Your task to perform on an android device: turn off translation in the chrome app Image 0: 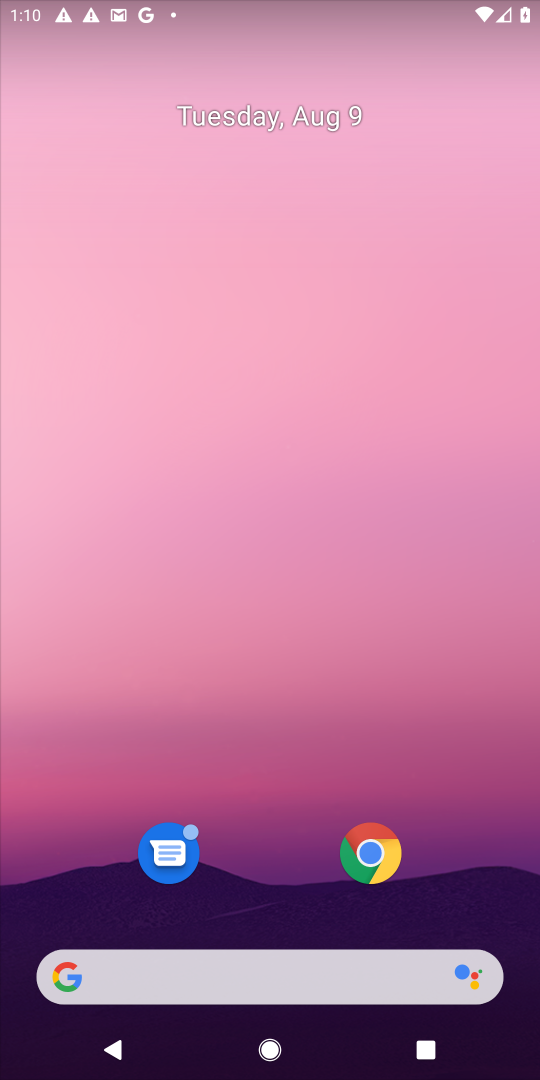
Step 0: drag from (275, 927) to (321, 50)
Your task to perform on an android device: turn off translation in the chrome app Image 1: 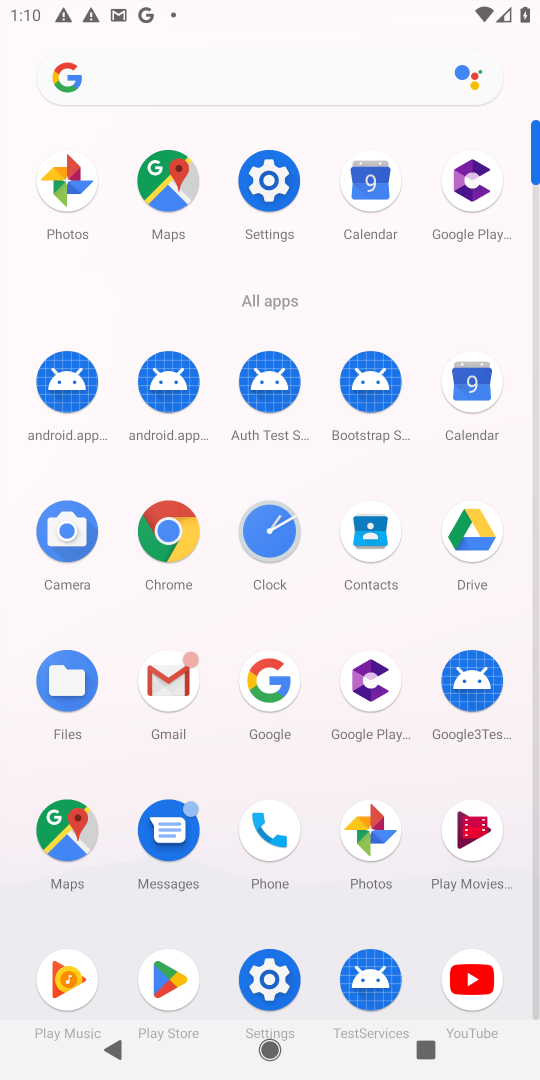
Step 1: click (164, 523)
Your task to perform on an android device: turn off translation in the chrome app Image 2: 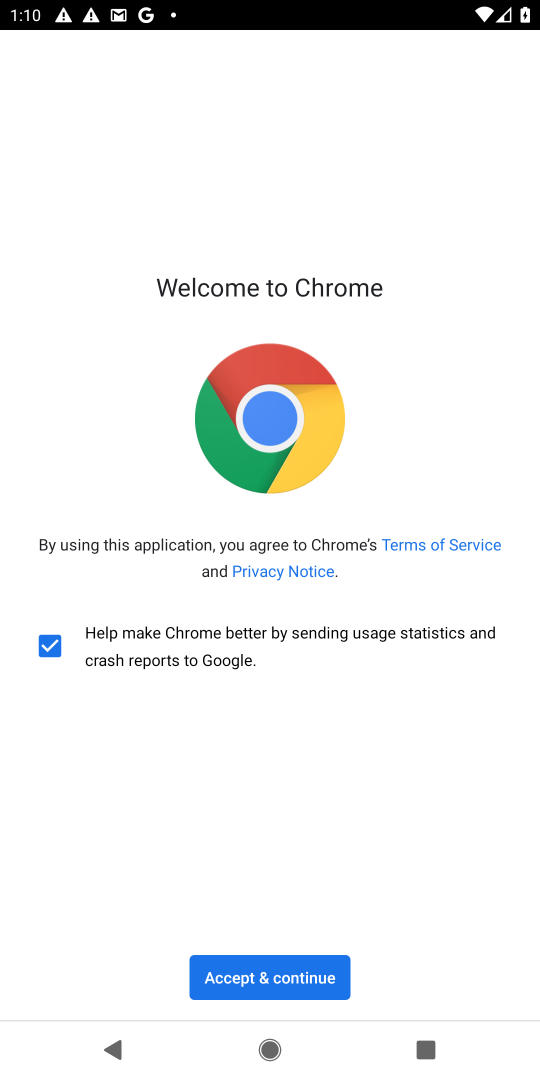
Step 2: click (270, 972)
Your task to perform on an android device: turn off translation in the chrome app Image 3: 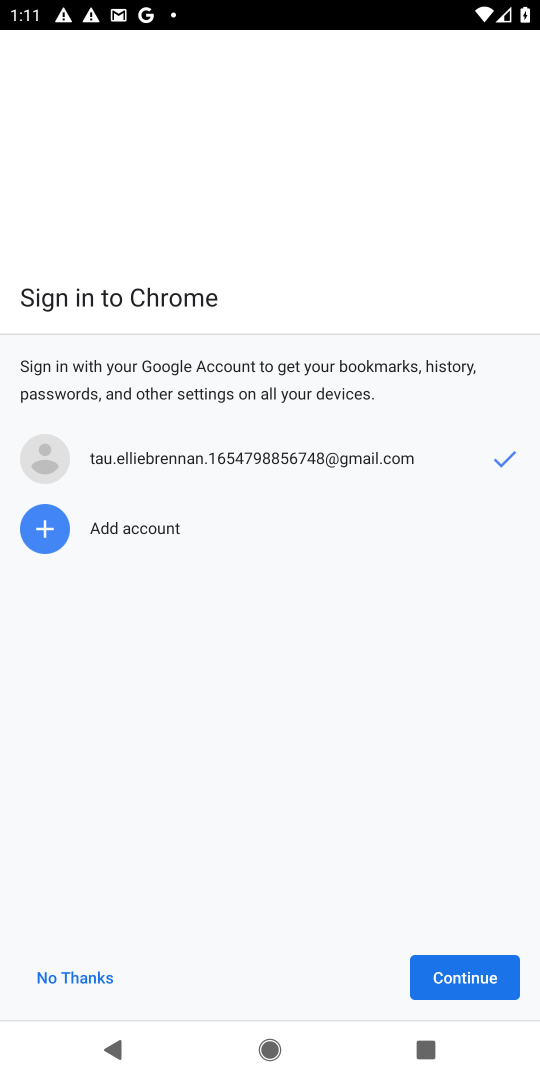
Step 3: click (485, 958)
Your task to perform on an android device: turn off translation in the chrome app Image 4: 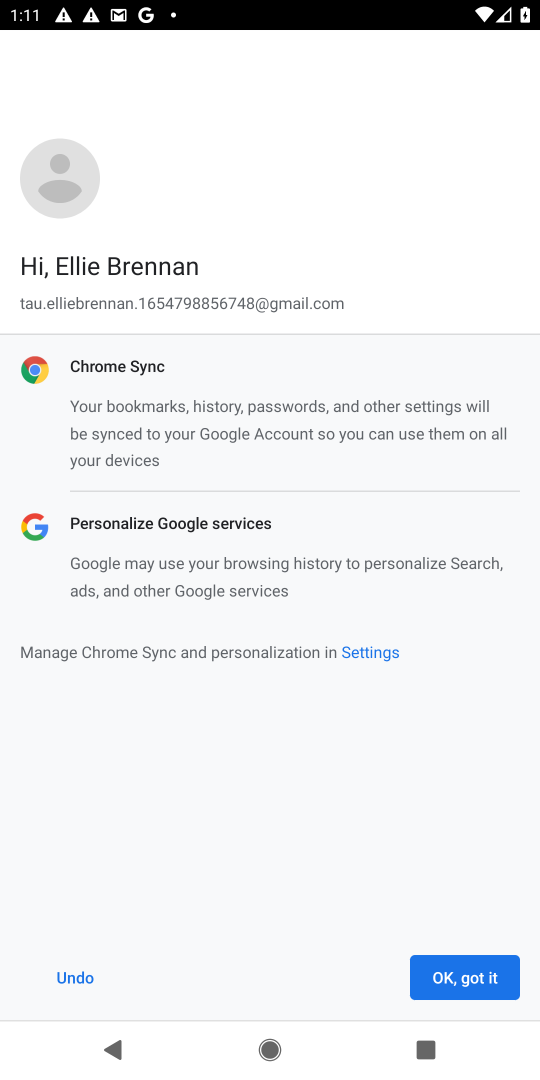
Step 4: click (470, 974)
Your task to perform on an android device: turn off translation in the chrome app Image 5: 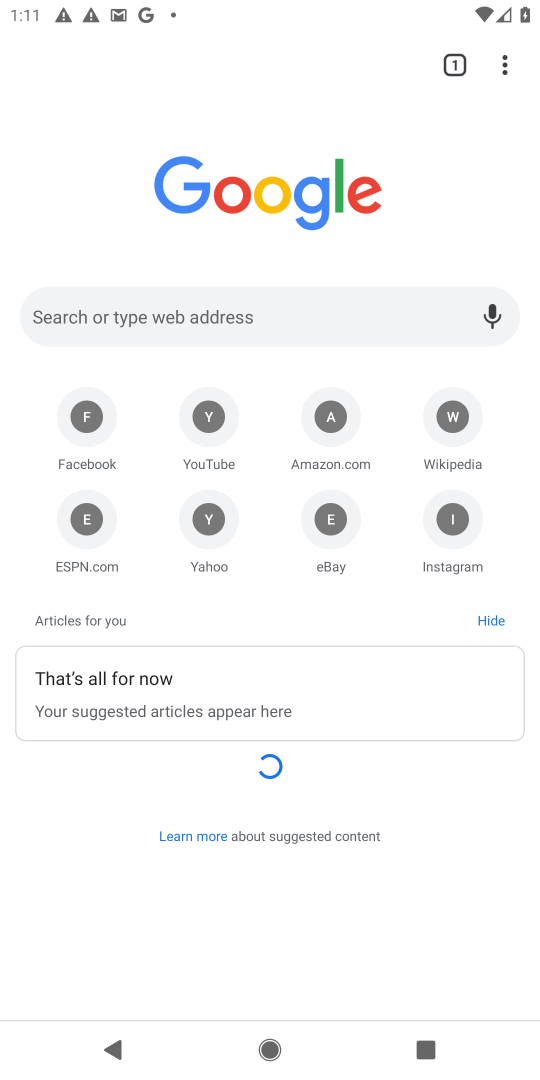
Step 5: click (512, 60)
Your task to perform on an android device: turn off translation in the chrome app Image 6: 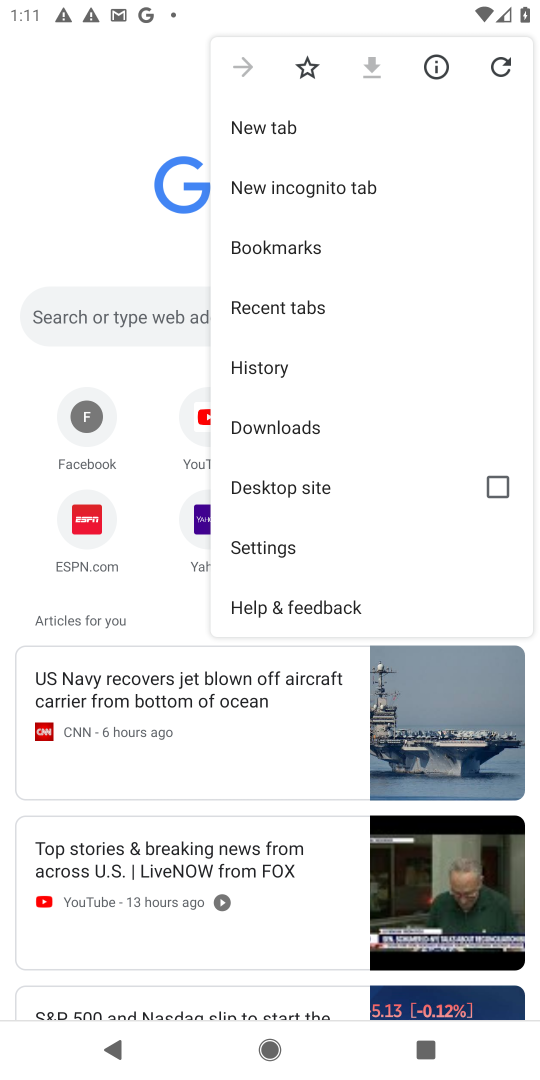
Step 6: click (289, 546)
Your task to perform on an android device: turn off translation in the chrome app Image 7: 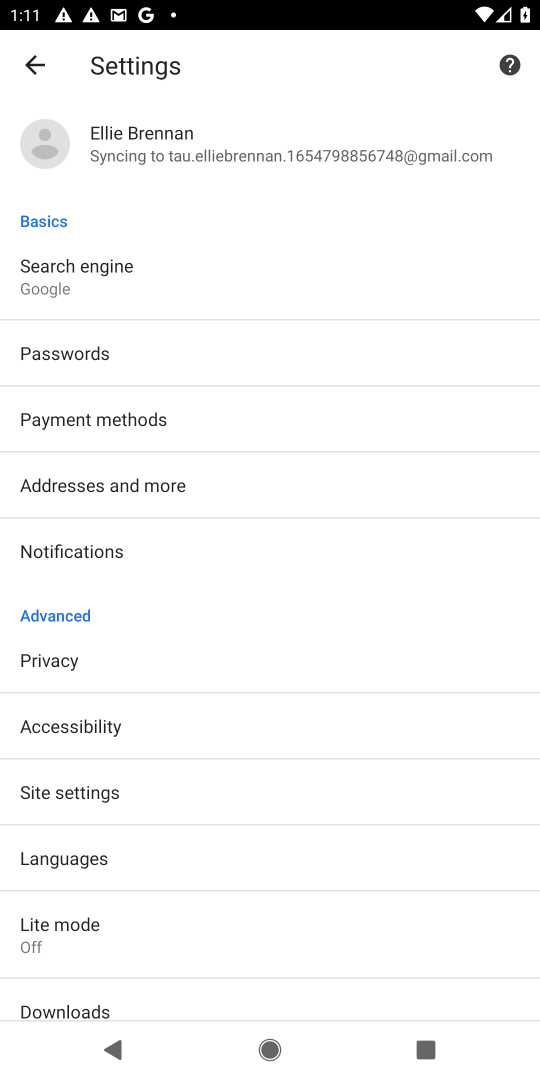
Step 7: click (126, 855)
Your task to perform on an android device: turn off translation in the chrome app Image 8: 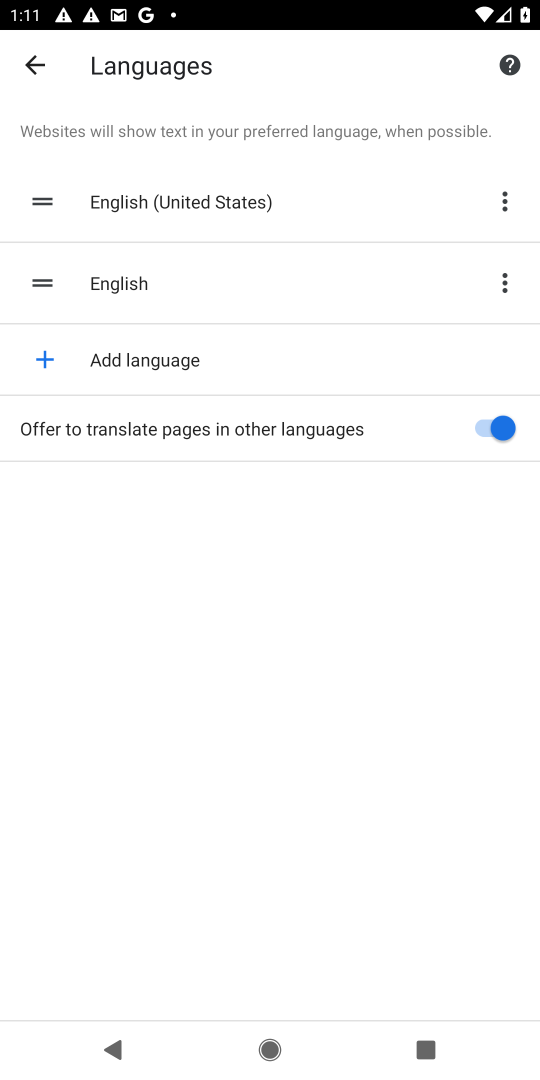
Step 8: click (495, 422)
Your task to perform on an android device: turn off translation in the chrome app Image 9: 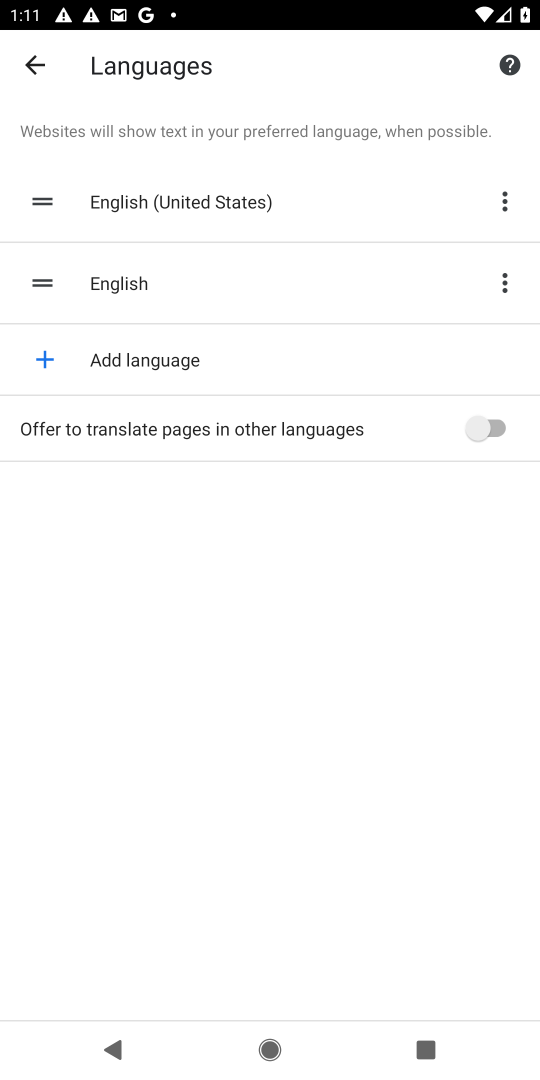
Step 9: task complete